Your task to perform on an android device: Open the stopwatch Image 0: 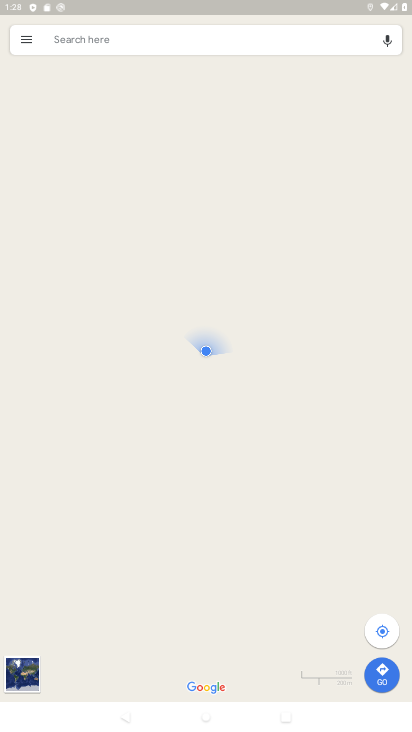
Step 0: press home button
Your task to perform on an android device: Open the stopwatch Image 1: 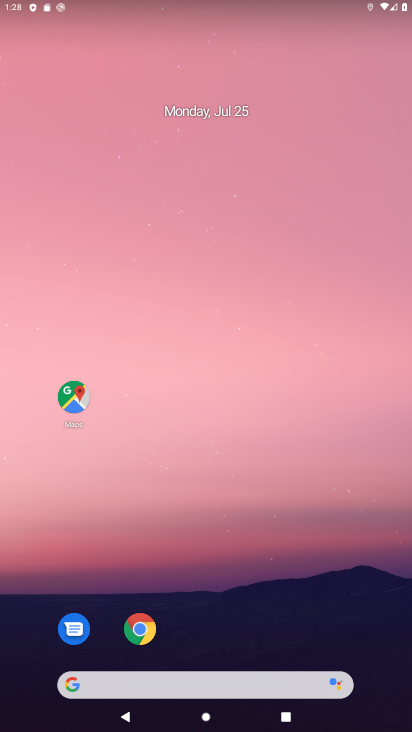
Step 1: drag from (364, 664) to (331, 0)
Your task to perform on an android device: Open the stopwatch Image 2: 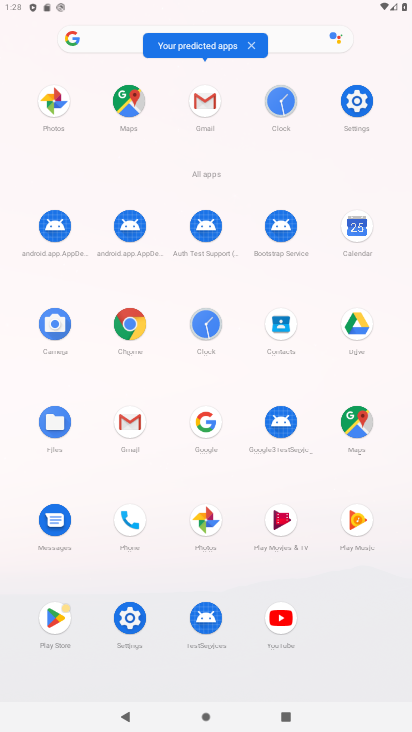
Step 2: click (203, 332)
Your task to perform on an android device: Open the stopwatch Image 3: 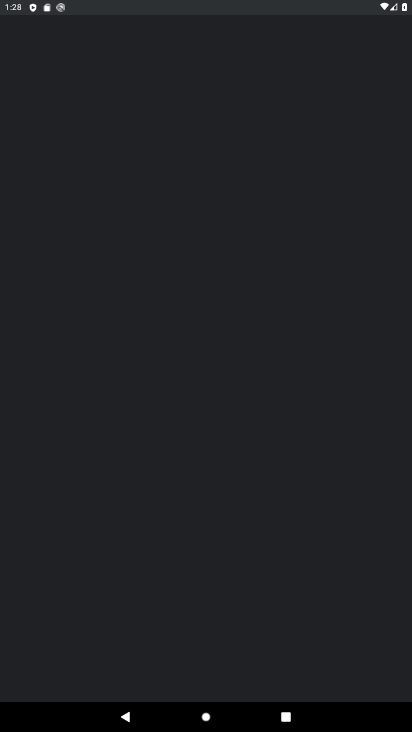
Step 3: click (203, 332)
Your task to perform on an android device: Open the stopwatch Image 4: 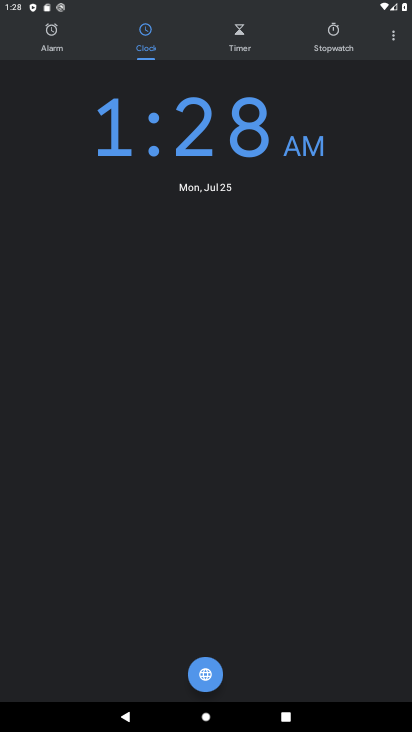
Step 4: click (365, 25)
Your task to perform on an android device: Open the stopwatch Image 5: 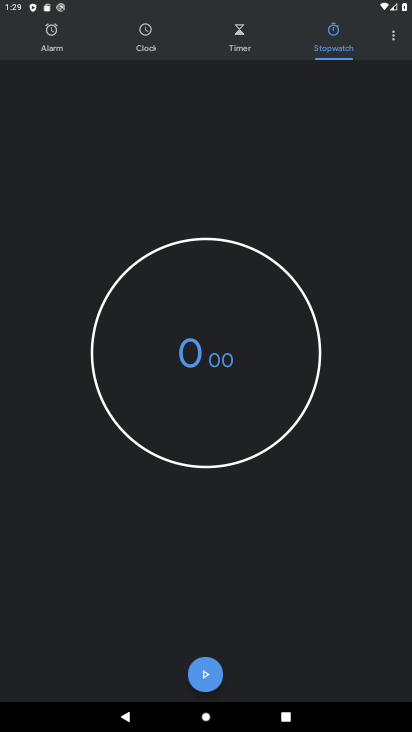
Step 5: task complete